Your task to perform on an android device: change keyboard looks Image 0: 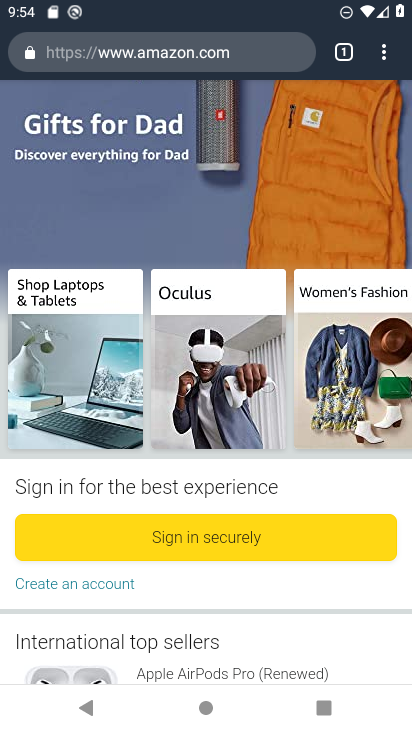
Step 0: drag from (194, 645) to (215, 140)
Your task to perform on an android device: change keyboard looks Image 1: 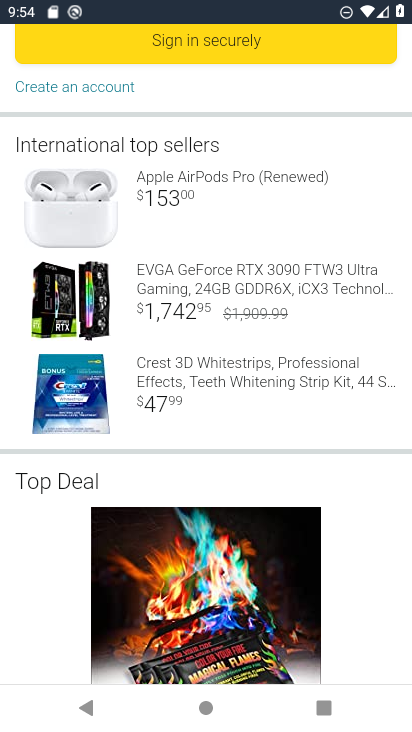
Step 1: drag from (191, 396) to (335, 726)
Your task to perform on an android device: change keyboard looks Image 2: 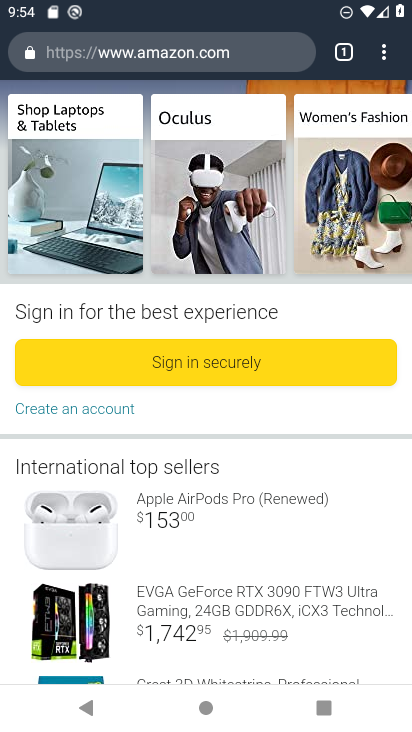
Step 2: press home button
Your task to perform on an android device: change keyboard looks Image 3: 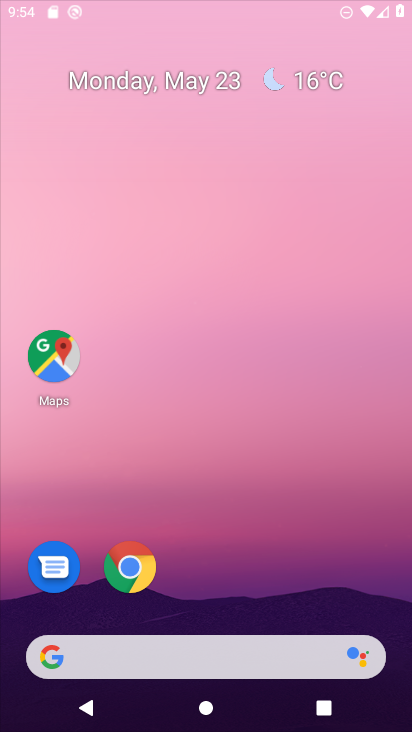
Step 3: drag from (246, 563) to (269, 155)
Your task to perform on an android device: change keyboard looks Image 4: 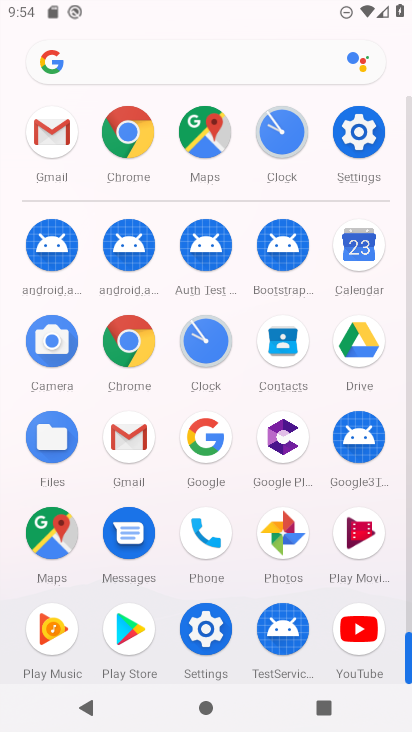
Step 4: click (204, 630)
Your task to perform on an android device: change keyboard looks Image 5: 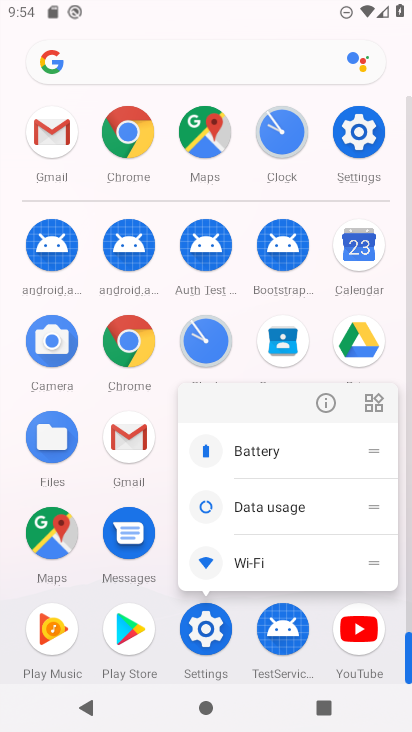
Step 5: click (329, 398)
Your task to perform on an android device: change keyboard looks Image 6: 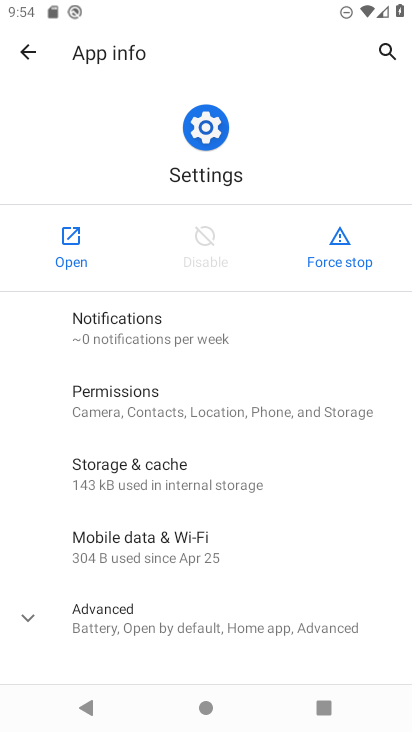
Step 6: click (114, 247)
Your task to perform on an android device: change keyboard looks Image 7: 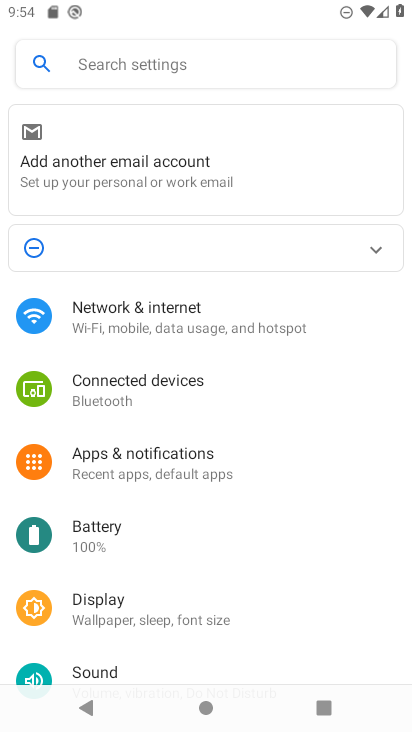
Step 7: drag from (161, 598) to (307, 27)
Your task to perform on an android device: change keyboard looks Image 8: 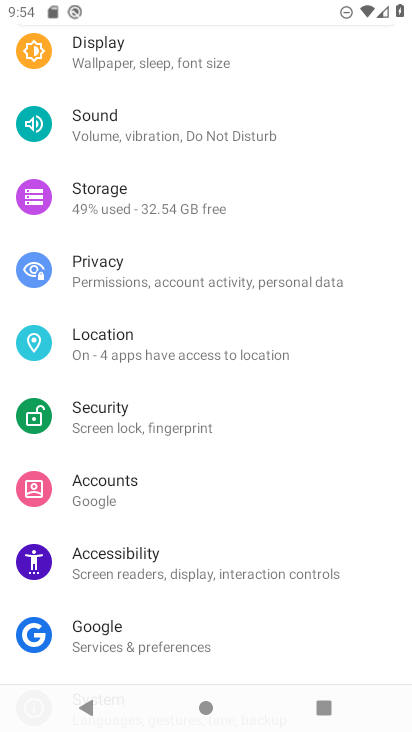
Step 8: drag from (208, 599) to (201, 178)
Your task to perform on an android device: change keyboard looks Image 9: 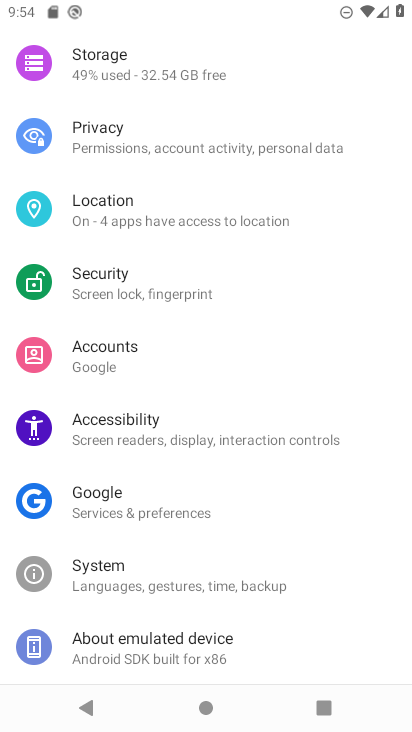
Step 9: click (159, 583)
Your task to perform on an android device: change keyboard looks Image 10: 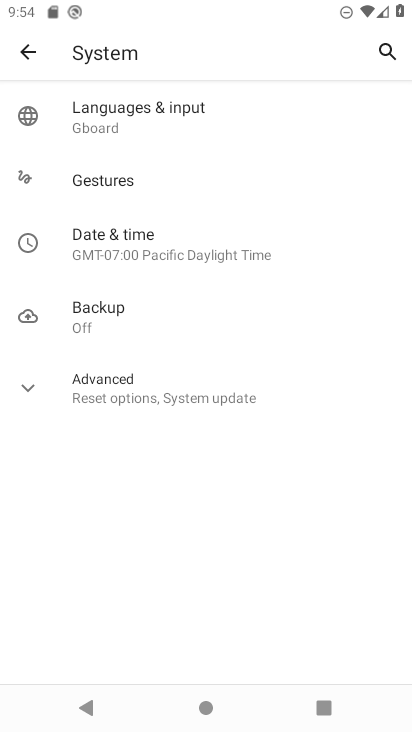
Step 10: click (178, 108)
Your task to perform on an android device: change keyboard looks Image 11: 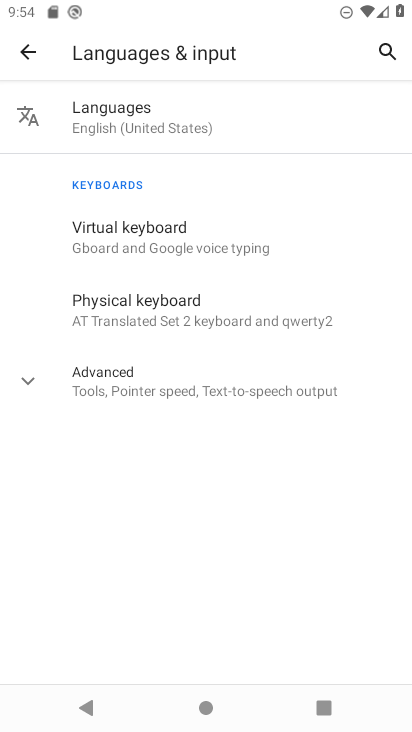
Step 11: click (173, 239)
Your task to perform on an android device: change keyboard looks Image 12: 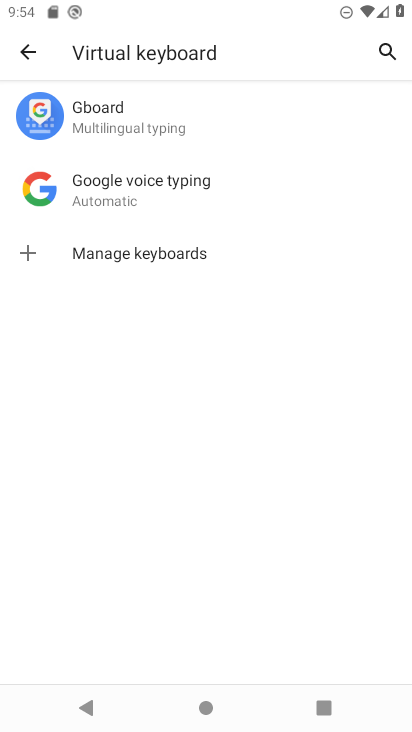
Step 12: click (177, 120)
Your task to perform on an android device: change keyboard looks Image 13: 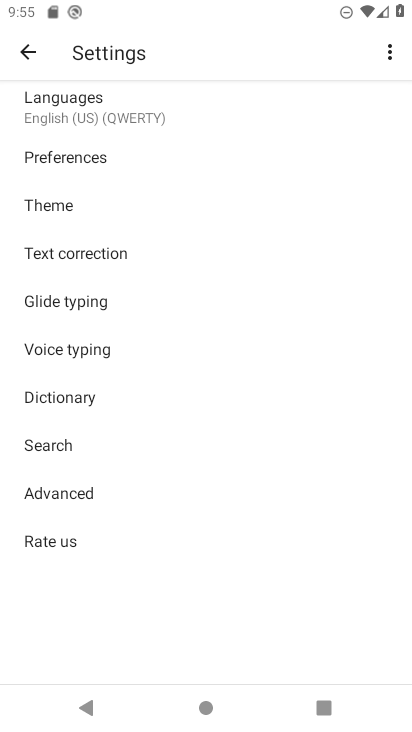
Step 13: click (89, 202)
Your task to perform on an android device: change keyboard looks Image 14: 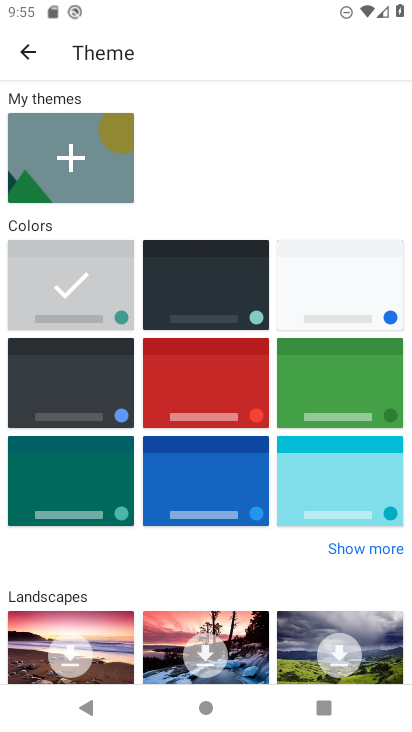
Step 14: drag from (201, 547) to (224, 333)
Your task to perform on an android device: change keyboard looks Image 15: 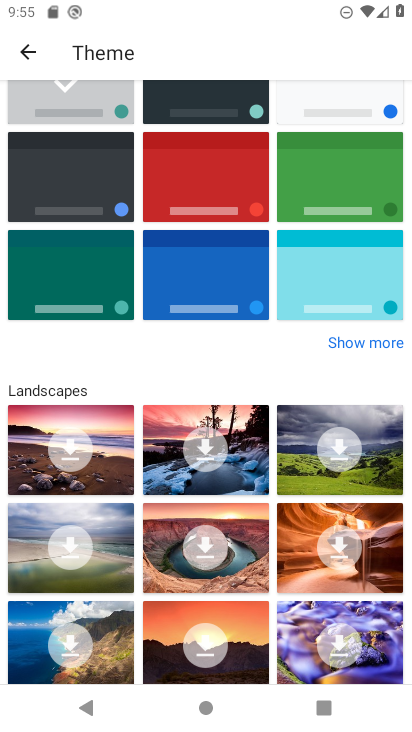
Step 15: drag from (225, 294) to (235, 591)
Your task to perform on an android device: change keyboard looks Image 16: 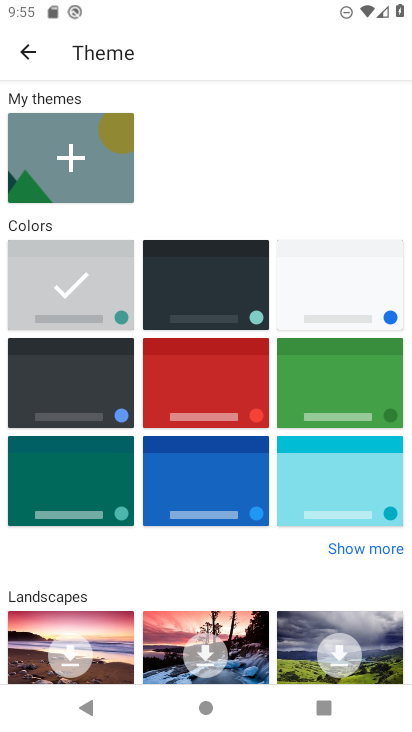
Step 16: click (197, 336)
Your task to perform on an android device: change keyboard looks Image 17: 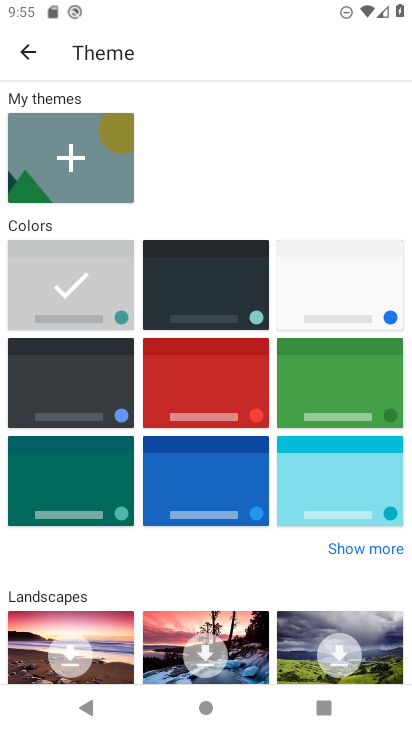
Step 17: click (205, 343)
Your task to perform on an android device: change keyboard looks Image 18: 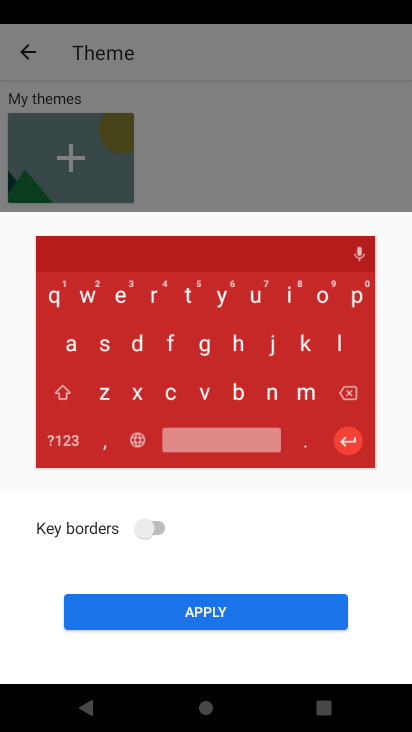
Step 18: click (254, 613)
Your task to perform on an android device: change keyboard looks Image 19: 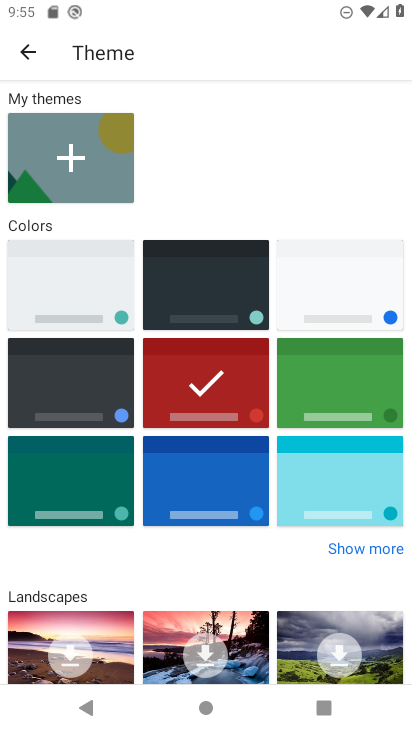
Step 19: task complete